Your task to perform on an android device: turn on translation in the chrome app Image 0: 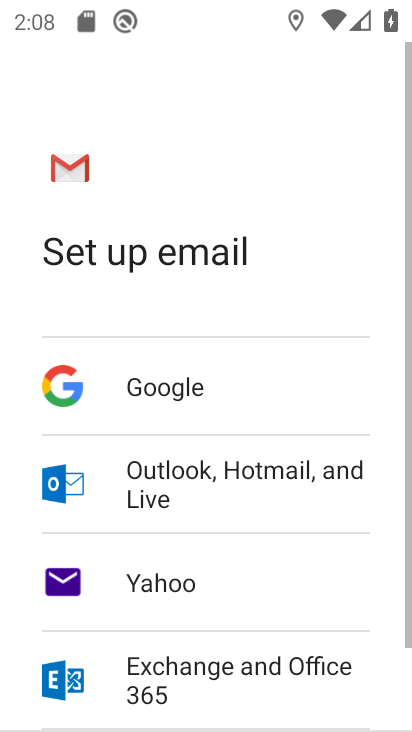
Step 0: press home button
Your task to perform on an android device: turn on translation in the chrome app Image 1: 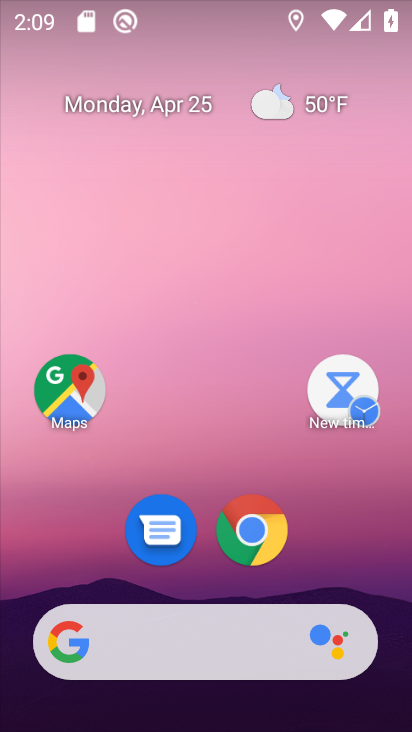
Step 1: drag from (191, 573) to (224, 23)
Your task to perform on an android device: turn on translation in the chrome app Image 2: 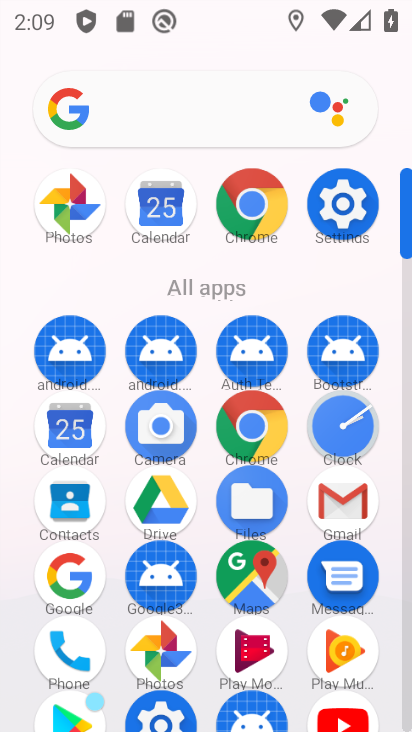
Step 2: click (254, 438)
Your task to perform on an android device: turn on translation in the chrome app Image 3: 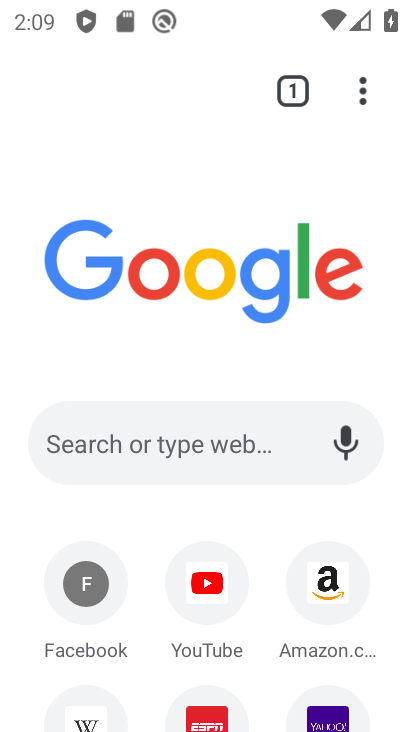
Step 3: click (350, 99)
Your task to perform on an android device: turn on translation in the chrome app Image 4: 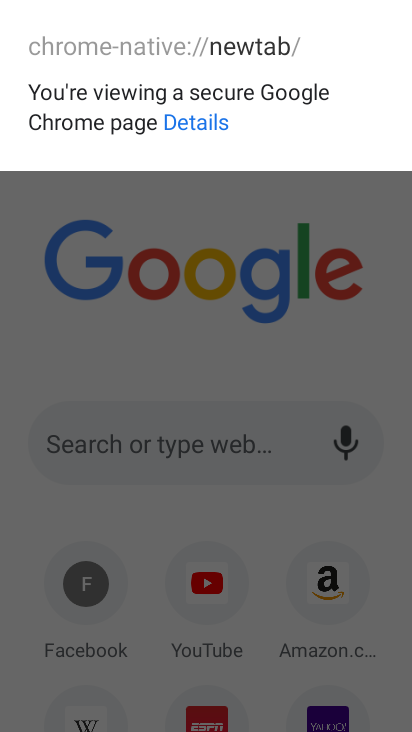
Step 4: click (356, 222)
Your task to perform on an android device: turn on translation in the chrome app Image 5: 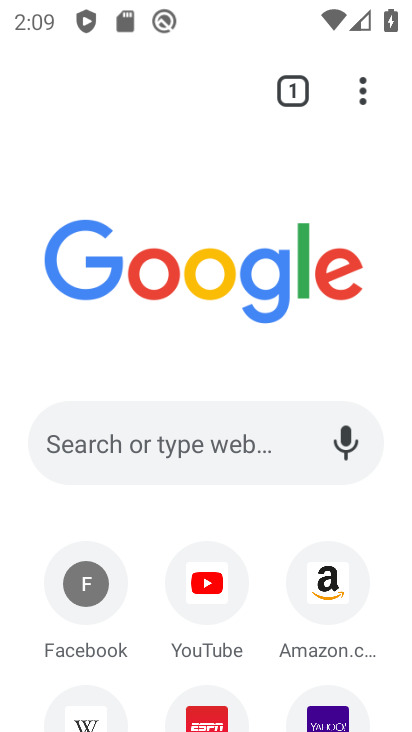
Step 5: drag from (364, 91) to (103, 554)
Your task to perform on an android device: turn on translation in the chrome app Image 6: 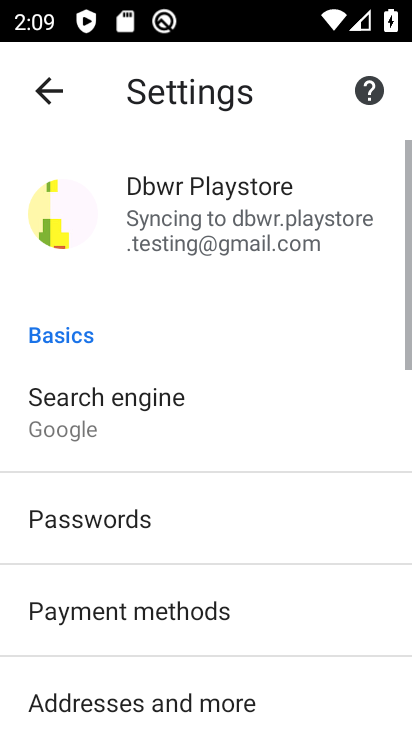
Step 6: drag from (112, 574) to (83, 52)
Your task to perform on an android device: turn on translation in the chrome app Image 7: 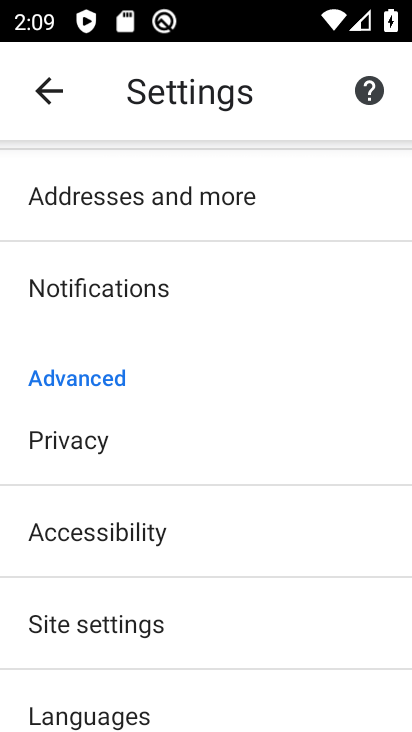
Step 7: click (95, 687)
Your task to perform on an android device: turn on translation in the chrome app Image 8: 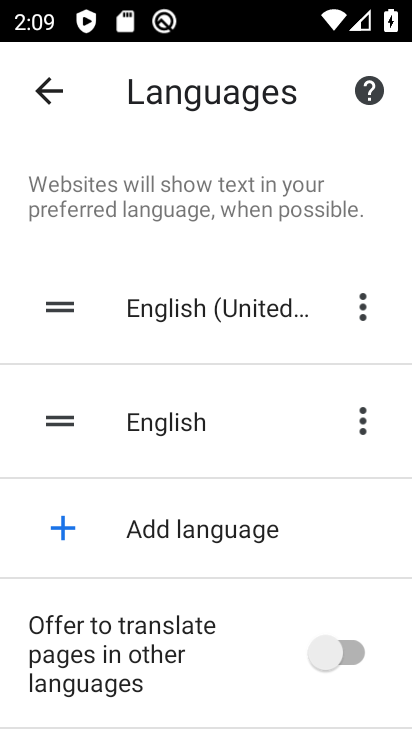
Step 8: click (338, 657)
Your task to perform on an android device: turn on translation in the chrome app Image 9: 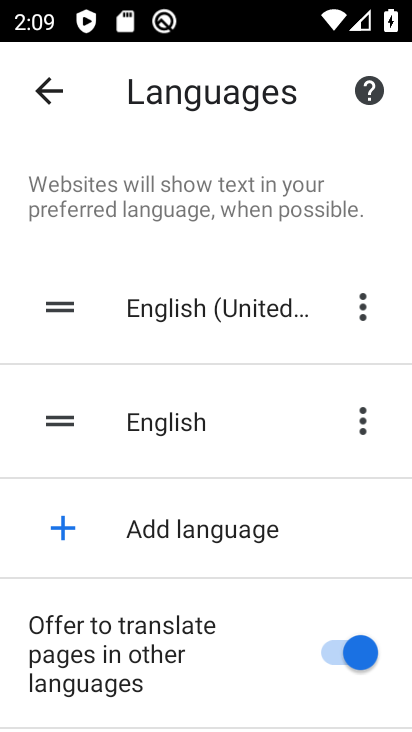
Step 9: task complete